Your task to perform on an android device: turn off data saver in the chrome app Image 0: 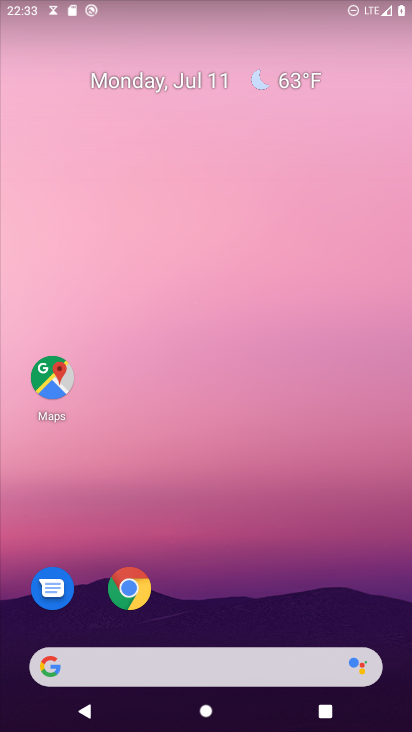
Step 0: drag from (204, 626) to (218, 141)
Your task to perform on an android device: turn off data saver in the chrome app Image 1: 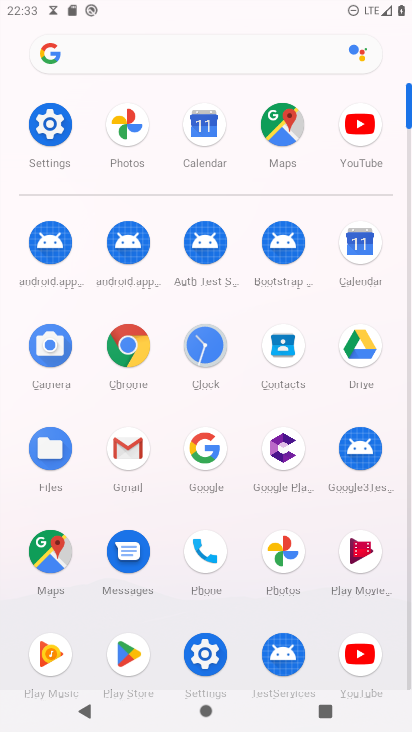
Step 1: click (130, 345)
Your task to perform on an android device: turn off data saver in the chrome app Image 2: 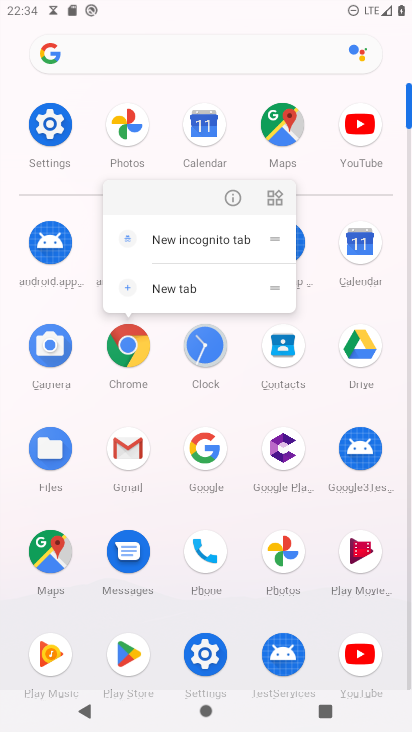
Step 2: click (136, 355)
Your task to perform on an android device: turn off data saver in the chrome app Image 3: 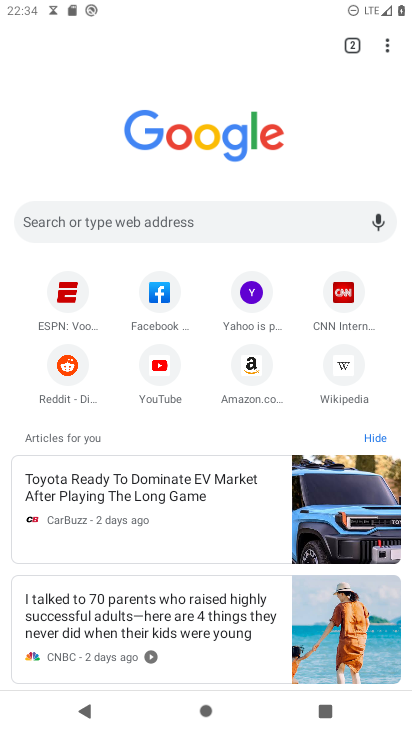
Step 3: drag from (386, 40) to (237, 378)
Your task to perform on an android device: turn off data saver in the chrome app Image 4: 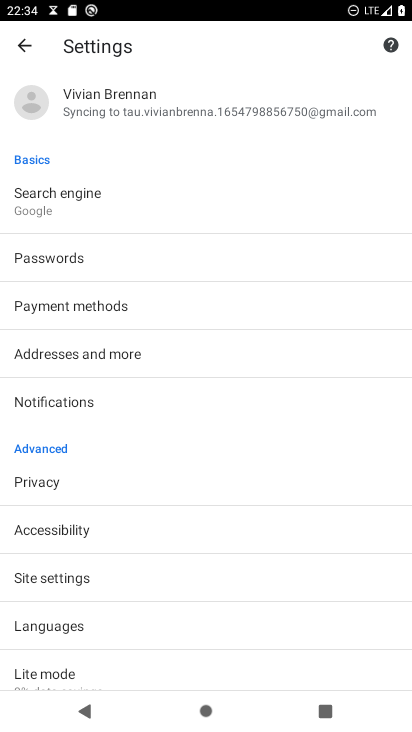
Step 4: click (27, 675)
Your task to perform on an android device: turn off data saver in the chrome app Image 5: 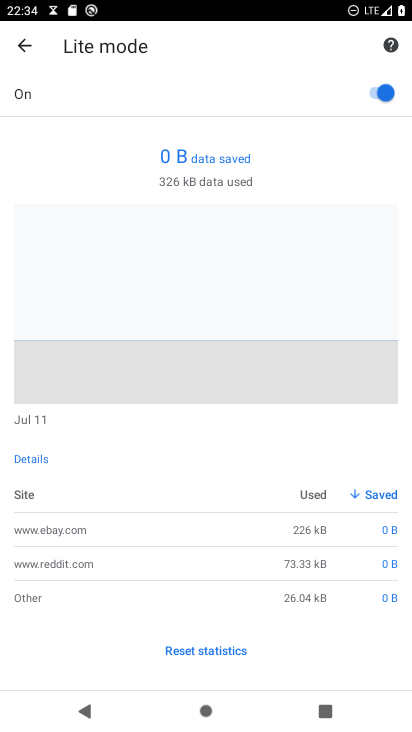
Step 5: click (389, 93)
Your task to perform on an android device: turn off data saver in the chrome app Image 6: 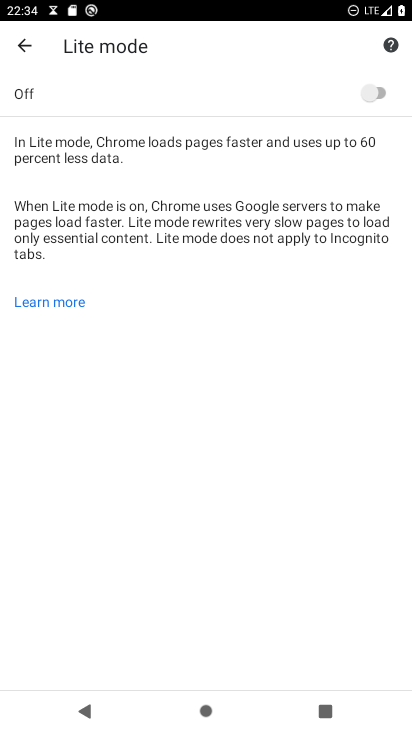
Step 6: task complete